Your task to perform on an android device: snooze an email in the gmail app Image 0: 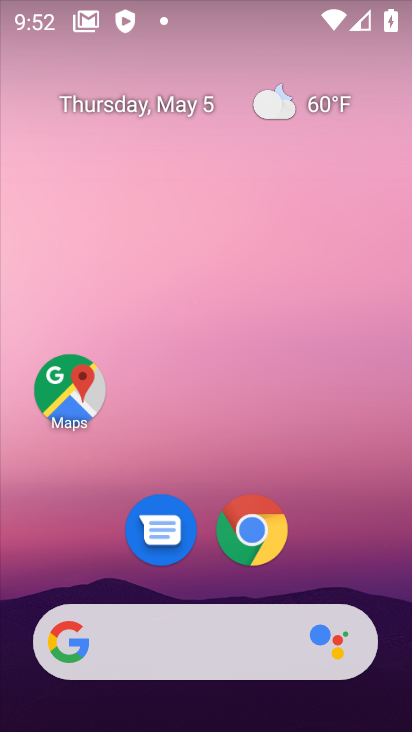
Step 0: drag from (333, 573) to (130, 40)
Your task to perform on an android device: snooze an email in the gmail app Image 1: 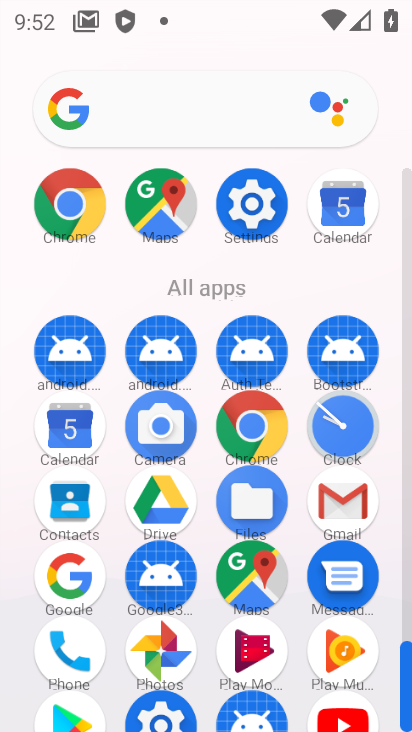
Step 1: click (338, 503)
Your task to perform on an android device: snooze an email in the gmail app Image 2: 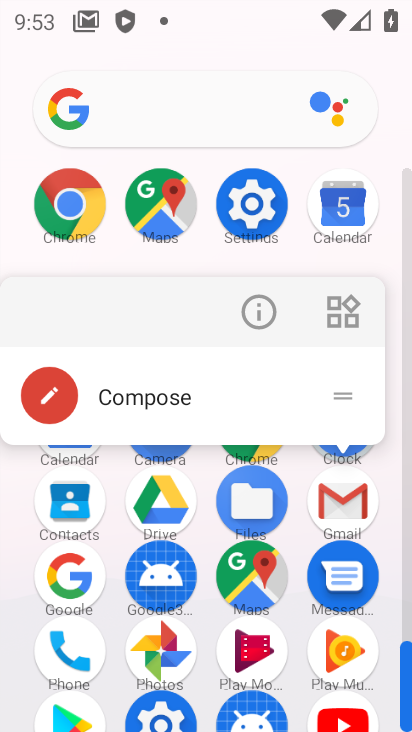
Step 2: click (306, 468)
Your task to perform on an android device: snooze an email in the gmail app Image 3: 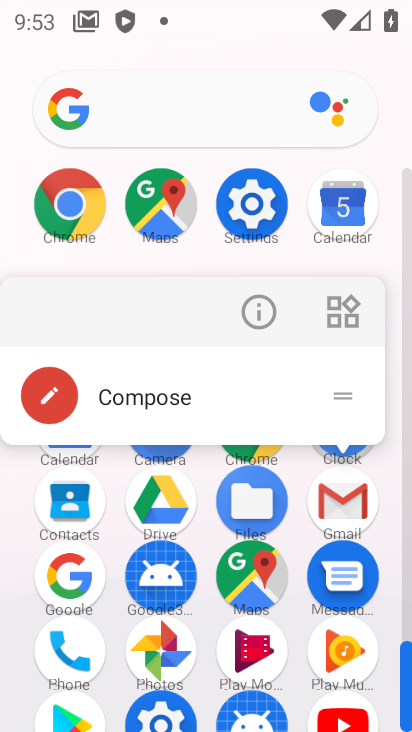
Step 3: click (286, 472)
Your task to perform on an android device: snooze an email in the gmail app Image 4: 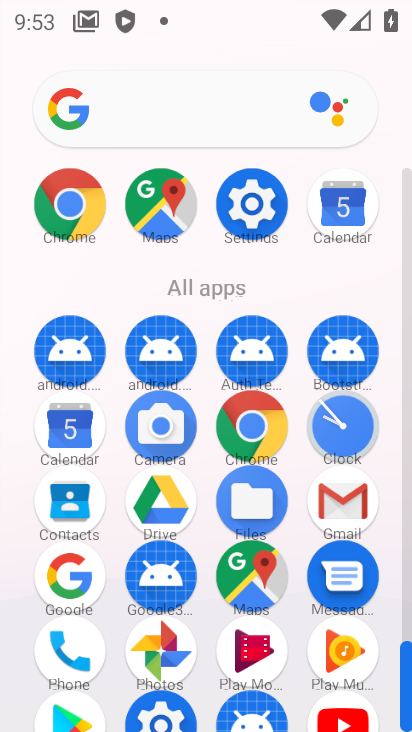
Step 4: click (339, 483)
Your task to perform on an android device: snooze an email in the gmail app Image 5: 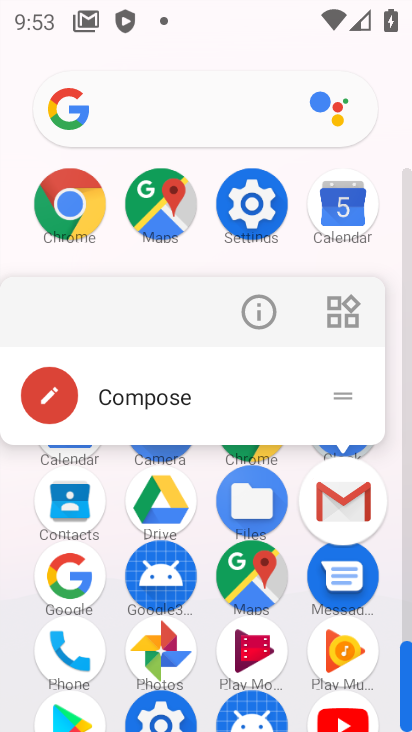
Step 5: click (339, 485)
Your task to perform on an android device: snooze an email in the gmail app Image 6: 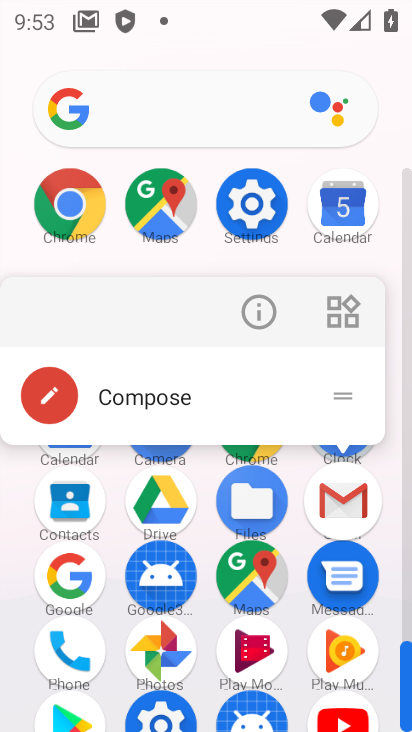
Step 6: click (339, 485)
Your task to perform on an android device: snooze an email in the gmail app Image 7: 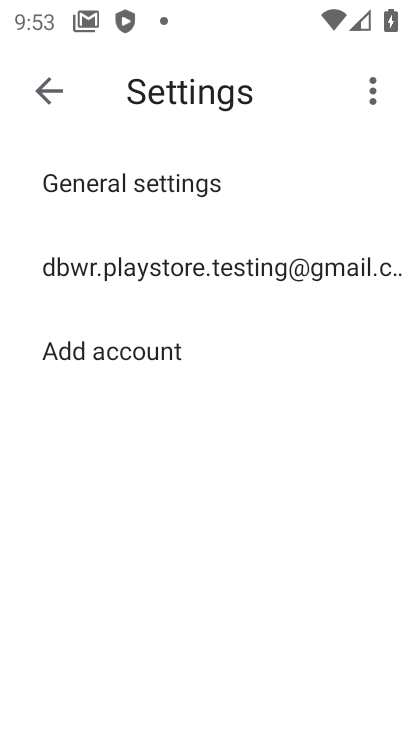
Step 7: click (339, 485)
Your task to perform on an android device: snooze an email in the gmail app Image 8: 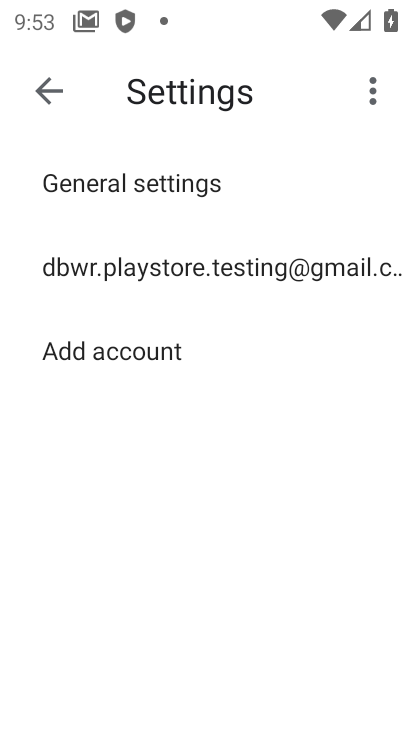
Step 8: click (146, 270)
Your task to perform on an android device: snooze an email in the gmail app Image 9: 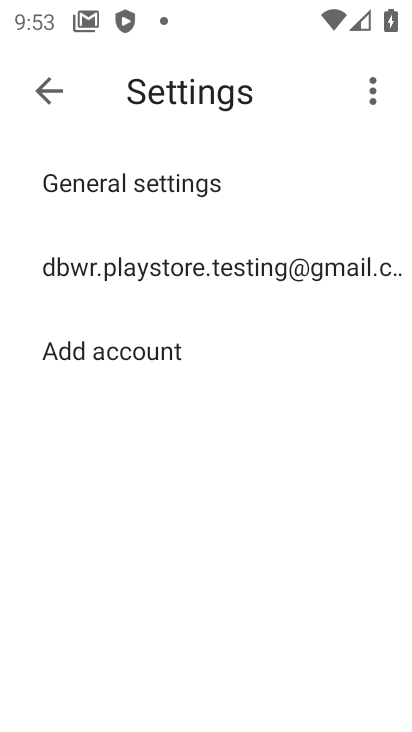
Step 9: click (149, 271)
Your task to perform on an android device: snooze an email in the gmail app Image 10: 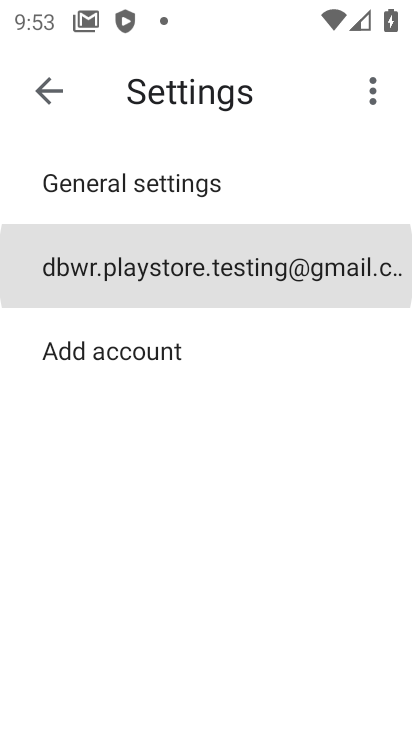
Step 10: click (149, 272)
Your task to perform on an android device: snooze an email in the gmail app Image 11: 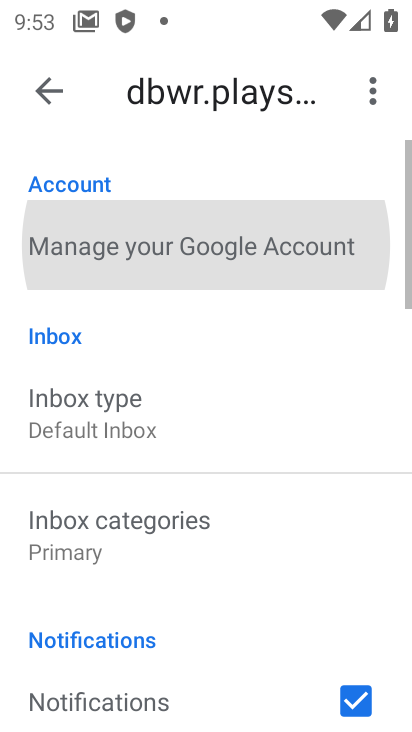
Step 11: click (148, 278)
Your task to perform on an android device: snooze an email in the gmail app Image 12: 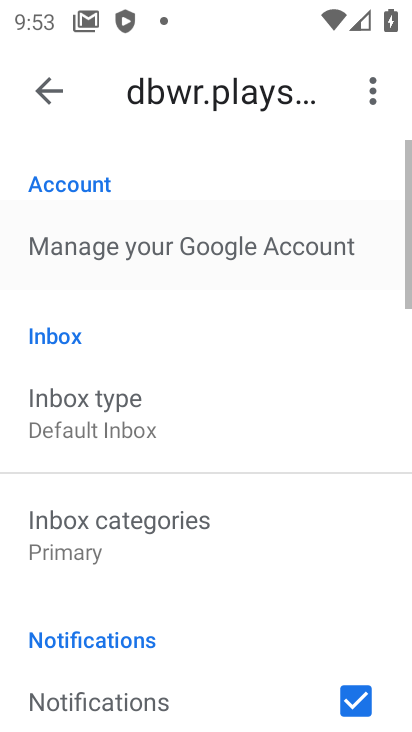
Step 12: click (148, 278)
Your task to perform on an android device: snooze an email in the gmail app Image 13: 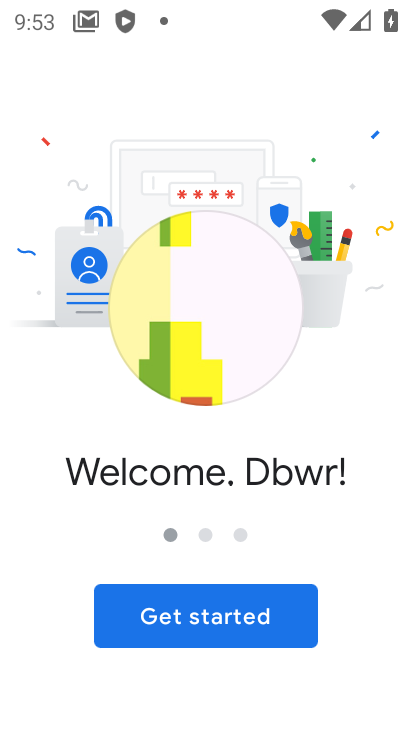
Step 13: click (252, 621)
Your task to perform on an android device: snooze an email in the gmail app Image 14: 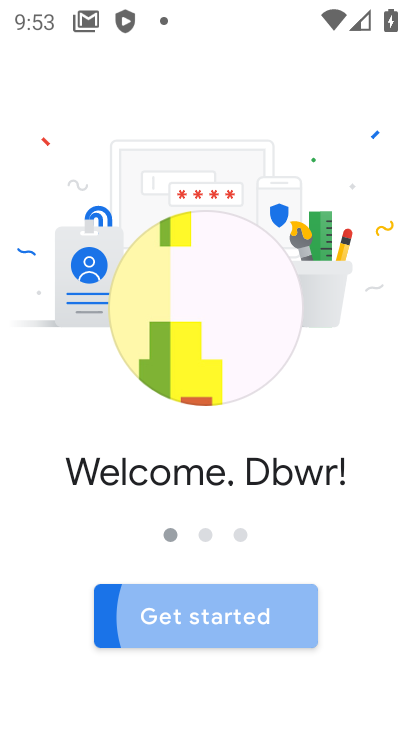
Step 14: click (252, 621)
Your task to perform on an android device: snooze an email in the gmail app Image 15: 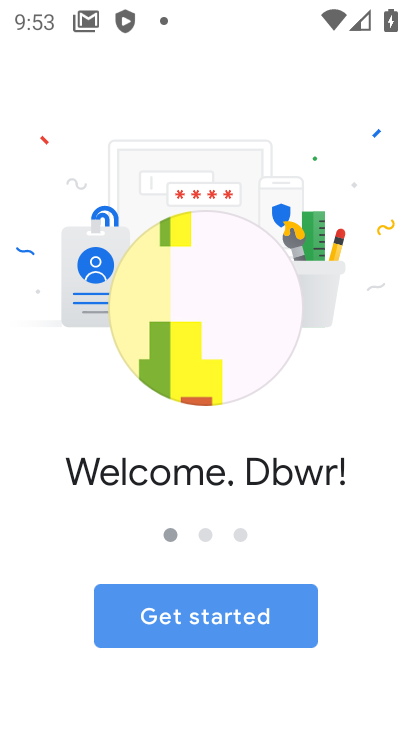
Step 15: click (252, 621)
Your task to perform on an android device: snooze an email in the gmail app Image 16: 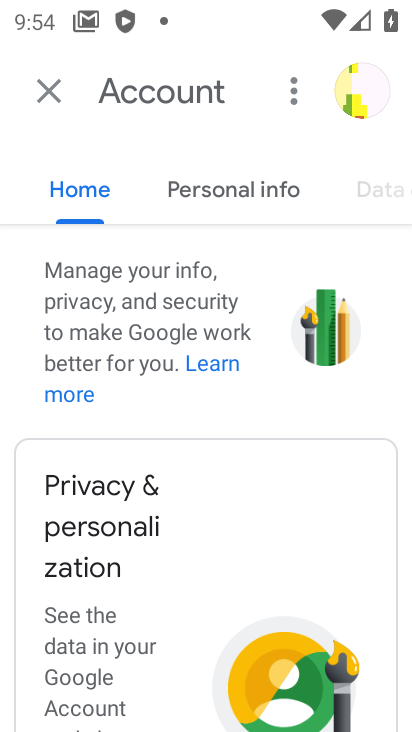
Step 16: press home button
Your task to perform on an android device: snooze an email in the gmail app Image 17: 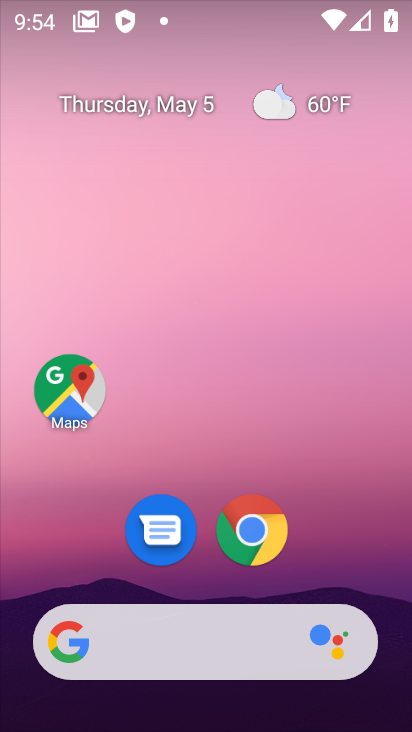
Step 17: drag from (333, 595) to (160, 74)
Your task to perform on an android device: snooze an email in the gmail app Image 18: 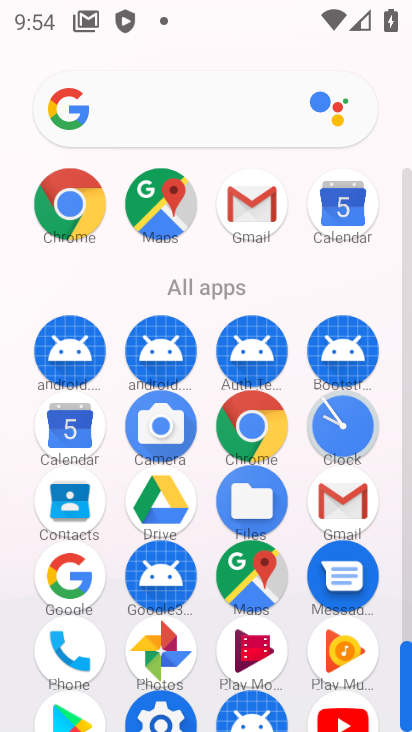
Step 18: click (342, 503)
Your task to perform on an android device: snooze an email in the gmail app Image 19: 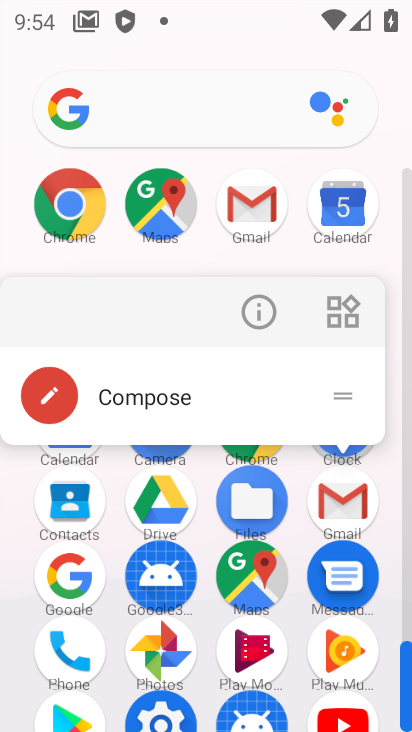
Step 19: click (133, 395)
Your task to perform on an android device: snooze an email in the gmail app Image 20: 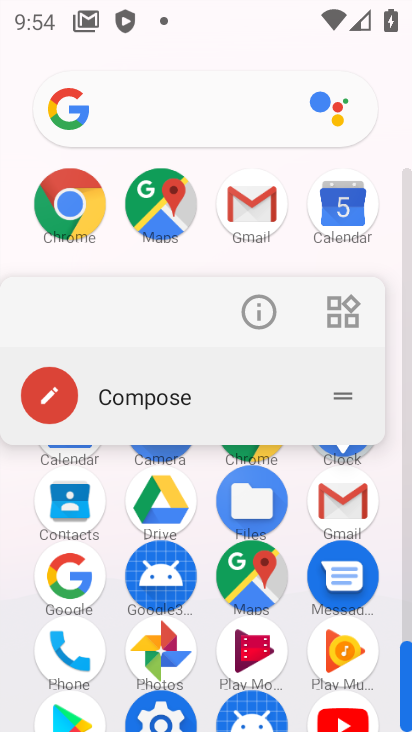
Step 20: click (133, 395)
Your task to perform on an android device: snooze an email in the gmail app Image 21: 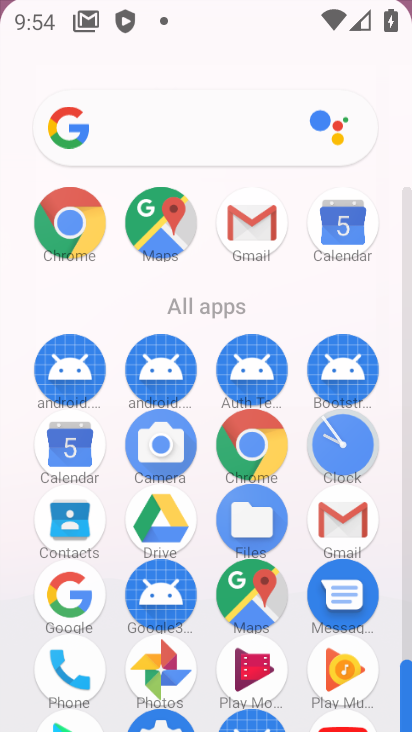
Step 21: click (133, 395)
Your task to perform on an android device: snooze an email in the gmail app Image 22: 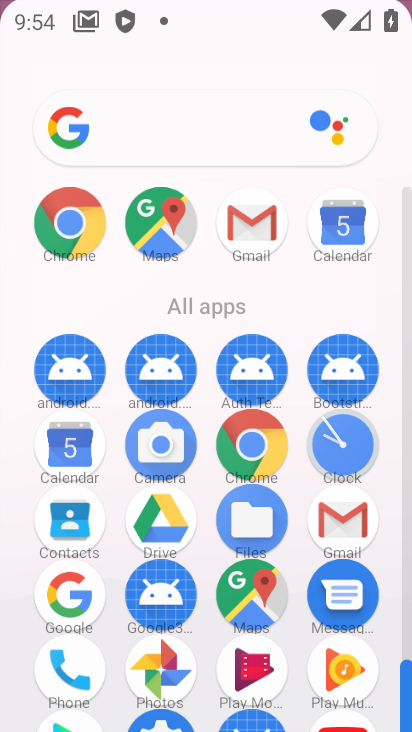
Step 22: click (132, 394)
Your task to perform on an android device: snooze an email in the gmail app Image 23: 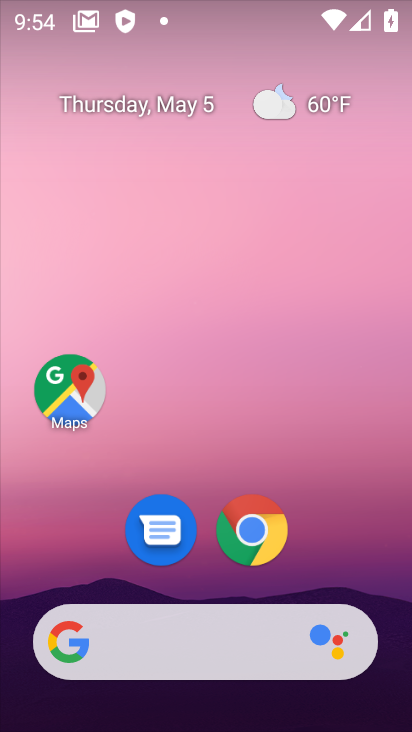
Step 23: drag from (320, 471) to (187, 18)
Your task to perform on an android device: snooze an email in the gmail app Image 24: 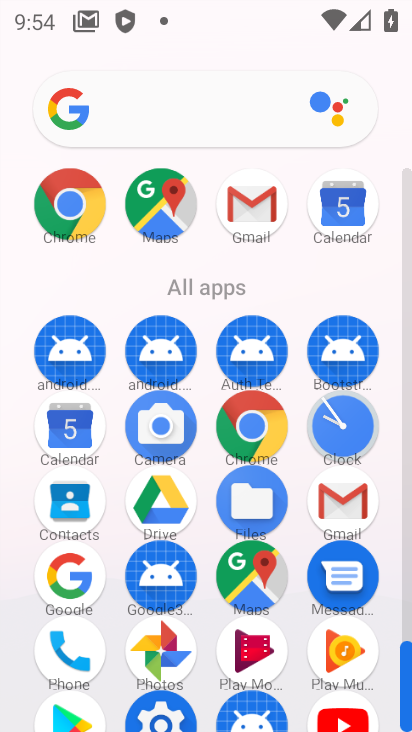
Step 24: click (269, 192)
Your task to perform on an android device: snooze an email in the gmail app Image 25: 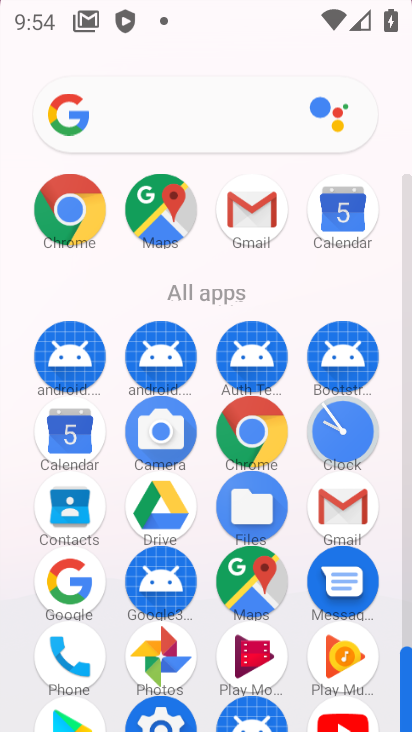
Step 25: click (253, 199)
Your task to perform on an android device: snooze an email in the gmail app Image 26: 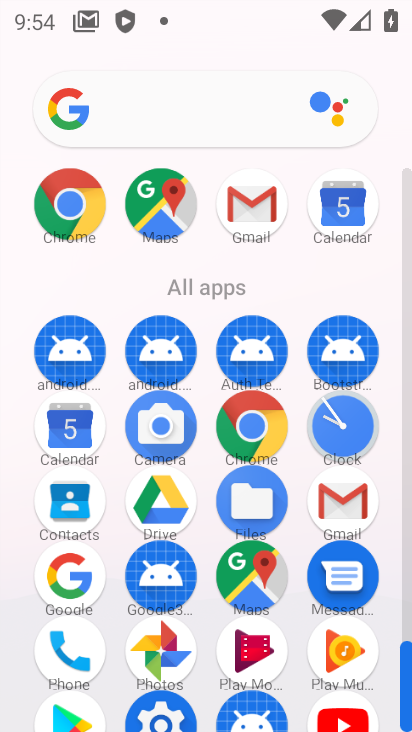
Step 26: click (253, 201)
Your task to perform on an android device: snooze an email in the gmail app Image 27: 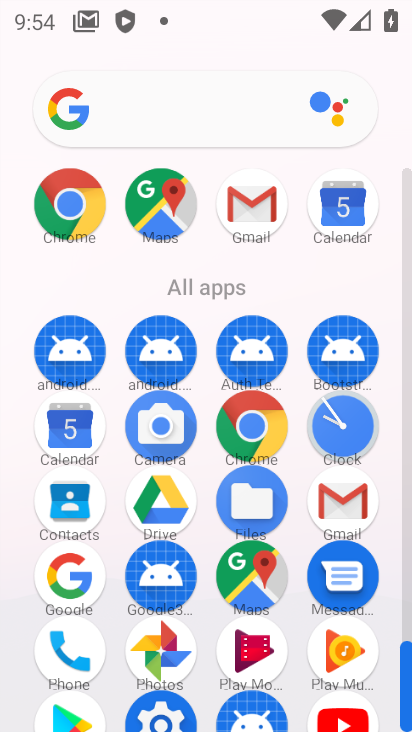
Step 27: click (260, 204)
Your task to perform on an android device: snooze an email in the gmail app Image 28: 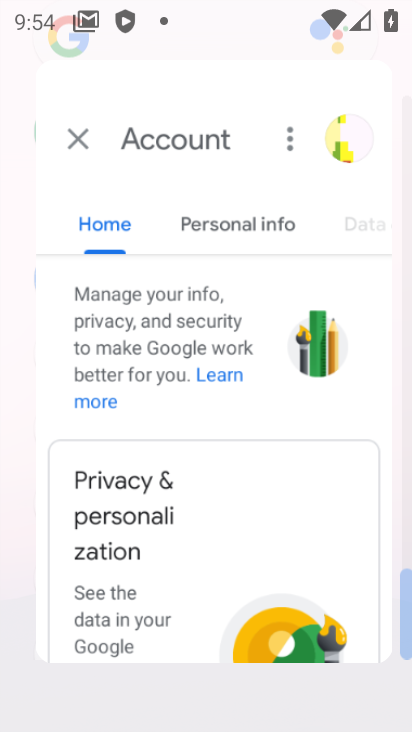
Step 28: click (264, 201)
Your task to perform on an android device: snooze an email in the gmail app Image 29: 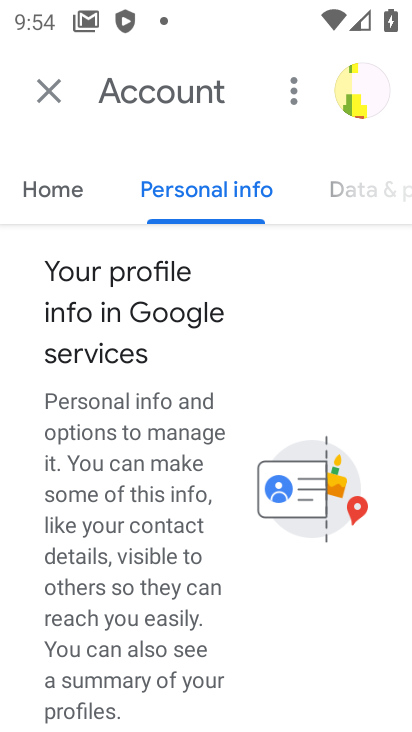
Step 29: click (50, 87)
Your task to perform on an android device: snooze an email in the gmail app Image 30: 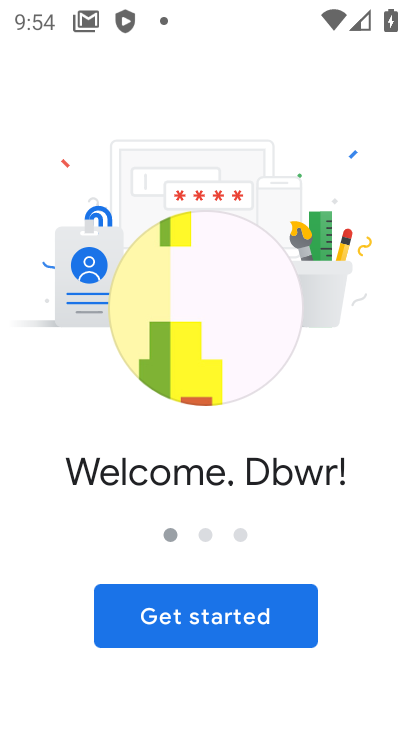
Step 30: click (230, 605)
Your task to perform on an android device: snooze an email in the gmail app Image 31: 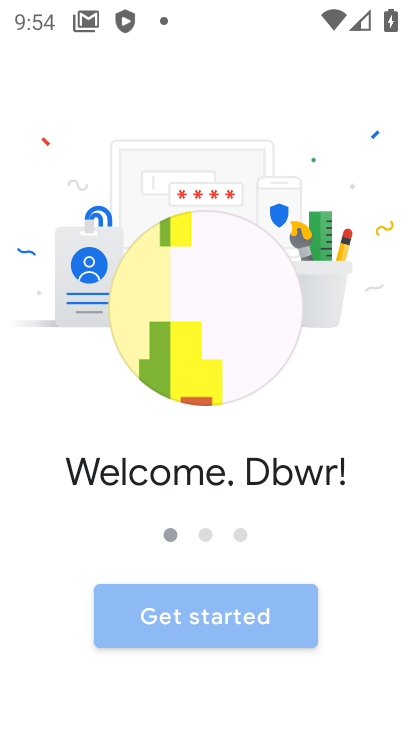
Step 31: click (227, 608)
Your task to perform on an android device: snooze an email in the gmail app Image 32: 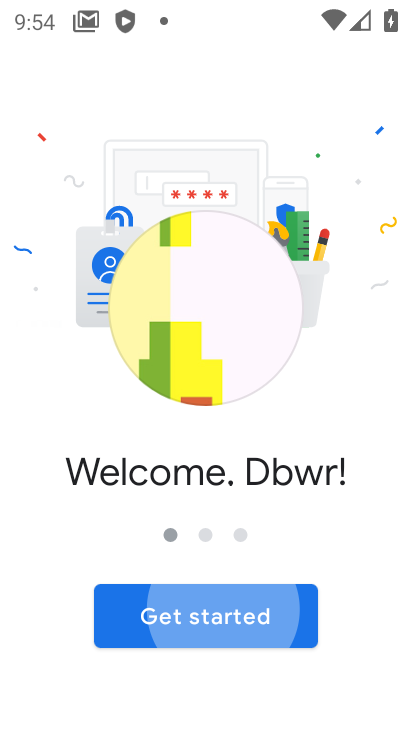
Step 32: click (226, 610)
Your task to perform on an android device: snooze an email in the gmail app Image 33: 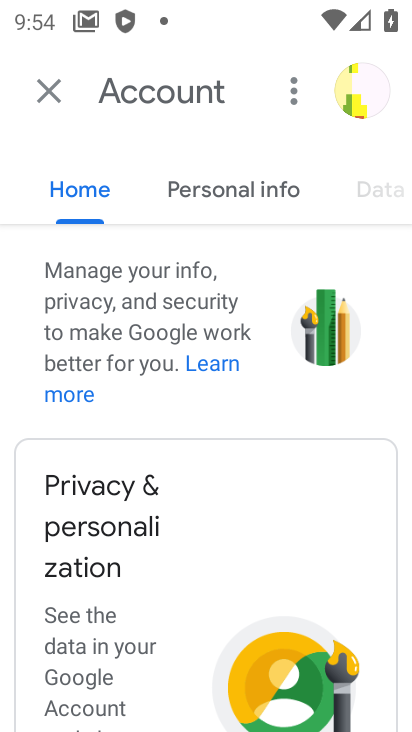
Step 33: click (226, 605)
Your task to perform on an android device: snooze an email in the gmail app Image 34: 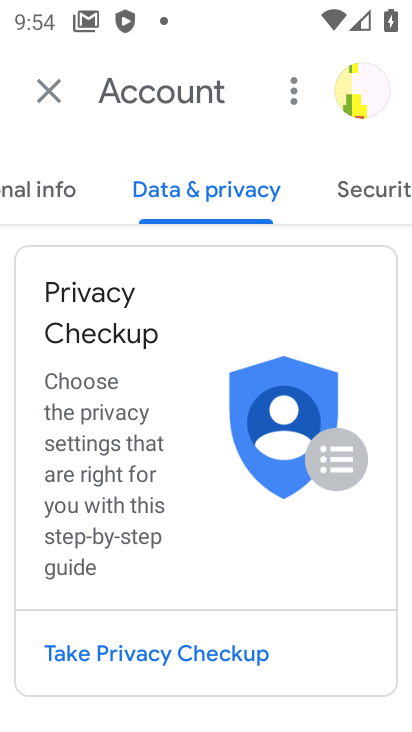
Step 34: click (47, 90)
Your task to perform on an android device: snooze an email in the gmail app Image 35: 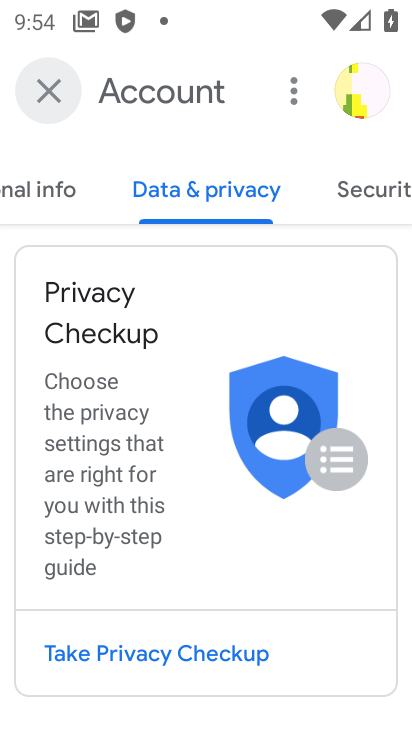
Step 35: click (47, 90)
Your task to perform on an android device: snooze an email in the gmail app Image 36: 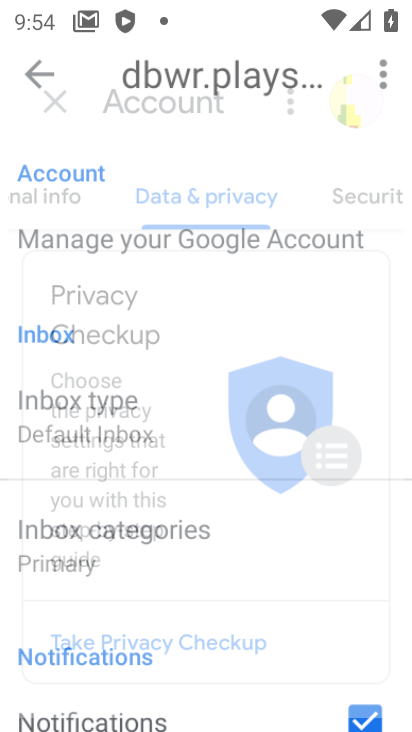
Step 36: click (47, 90)
Your task to perform on an android device: snooze an email in the gmail app Image 37: 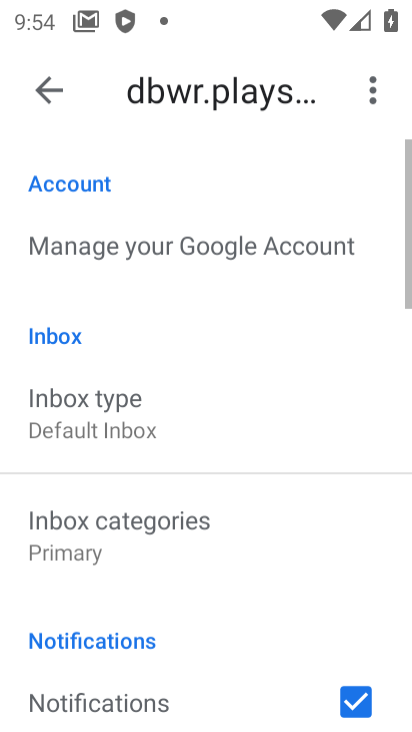
Step 37: click (47, 90)
Your task to perform on an android device: snooze an email in the gmail app Image 38: 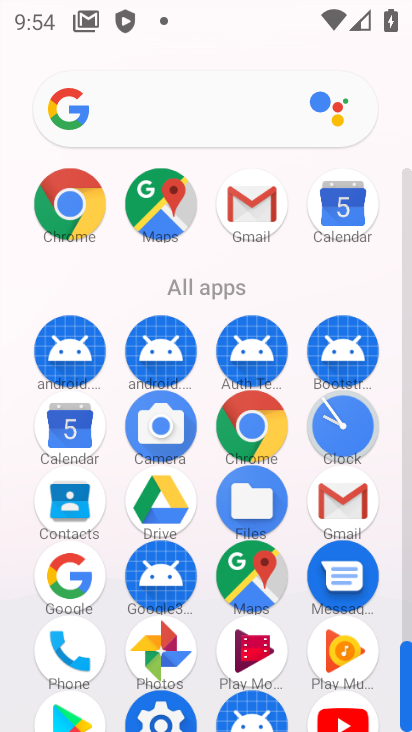
Step 38: click (341, 495)
Your task to perform on an android device: snooze an email in the gmail app Image 39: 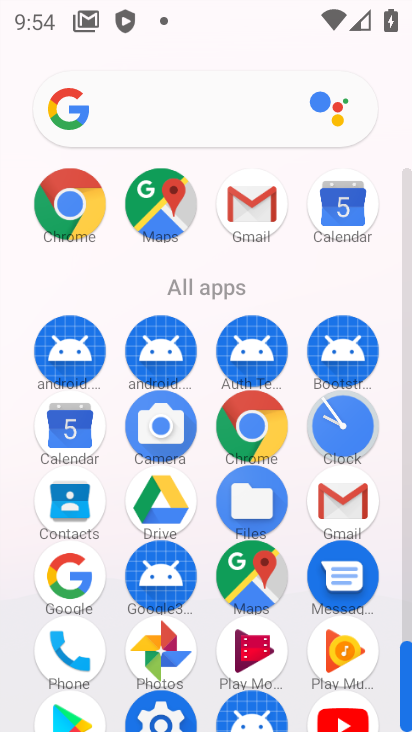
Step 39: click (341, 495)
Your task to perform on an android device: snooze an email in the gmail app Image 40: 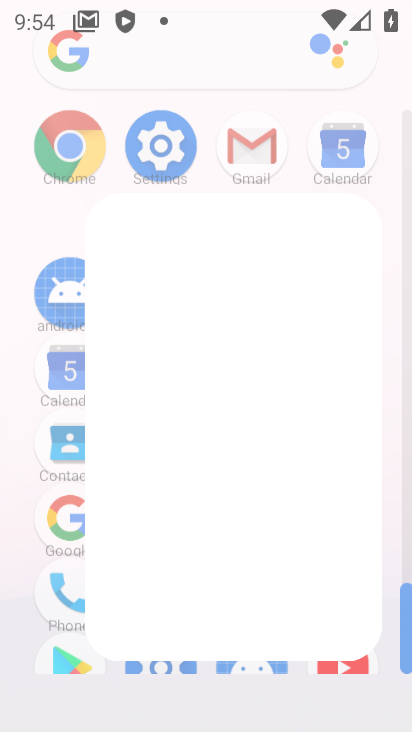
Step 40: click (341, 495)
Your task to perform on an android device: snooze an email in the gmail app Image 41: 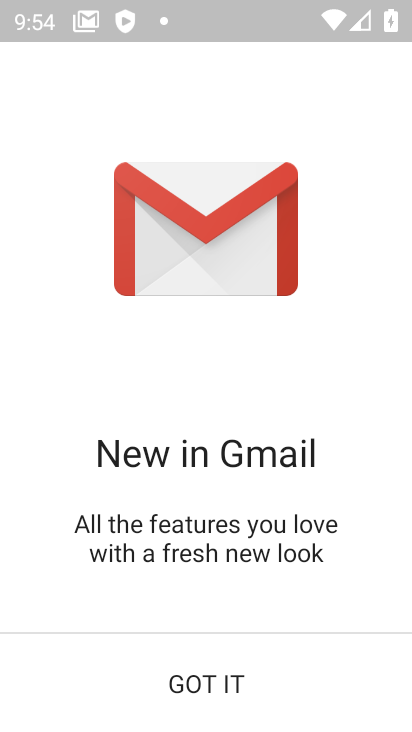
Step 41: click (200, 667)
Your task to perform on an android device: snooze an email in the gmail app Image 42: 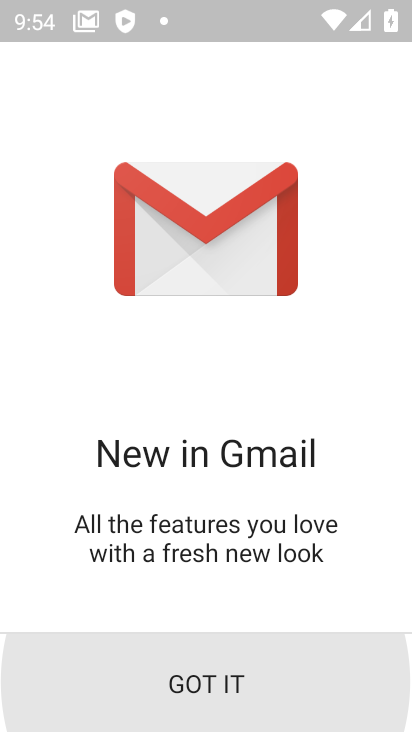
Step 42: click (200, 666)
Your task to perform on an android device: snooze an email in the gmail app Image 43: 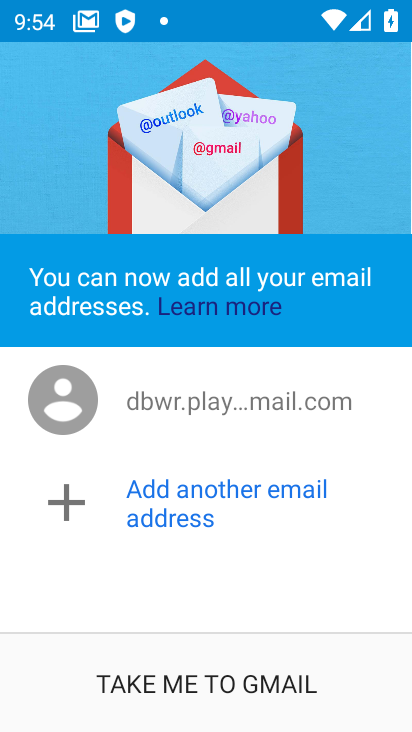
Step 43: click (206, 681)
Your task to perform on an android device: snooze an email in the gmail app Image 44: 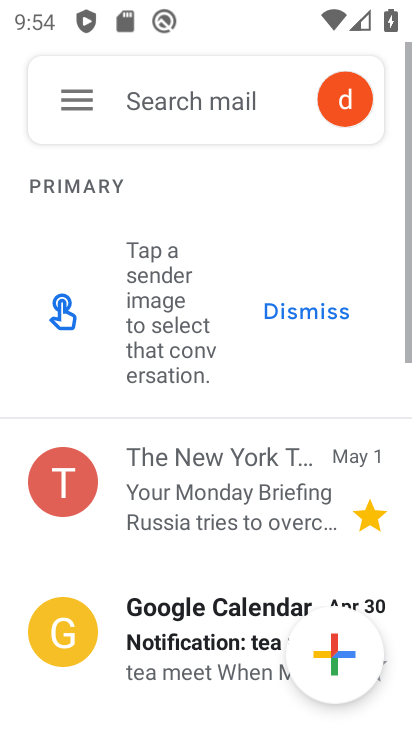
Step 44: click (192, 476)
Your task to perform on an android device: snooze an email in the gmail app Image 45: 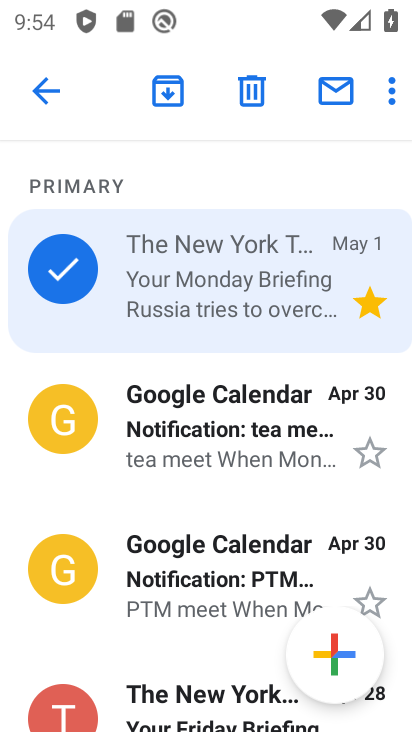
Step 45: click (397, 87)
Your task to perform on an android device: snooze an email in the gmail app Image 46: 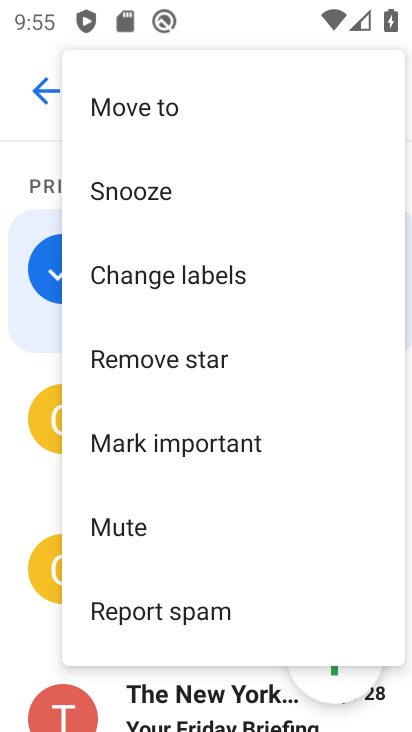
Step 46: click (124, 191)
Your task to perform on an android device: snooze an email in the gmail app Image 47: 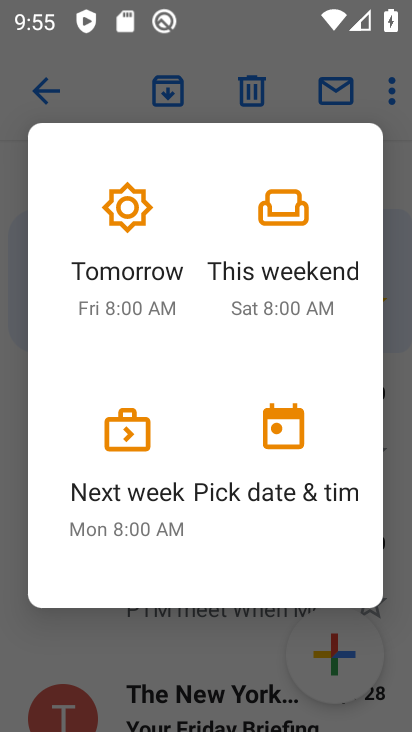
Step 47: click (296, 282)
Your task to perform on an android device: snooze an email in the gmail app Image 48: 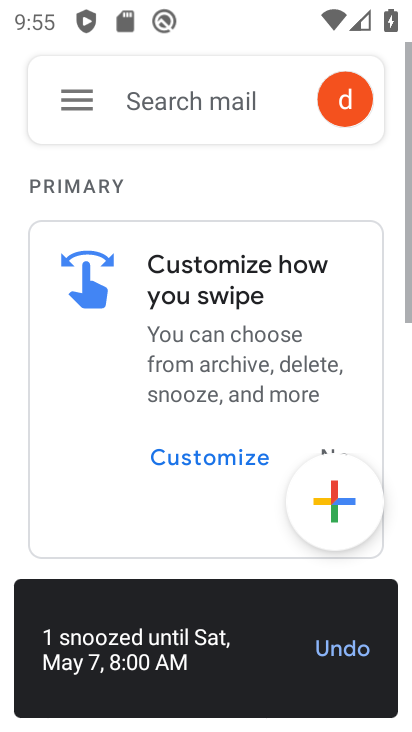
Step 48: task complete